Your task to perform on an android device: uninstall "Google Pay: Save, Pay, Manage" Image 0: 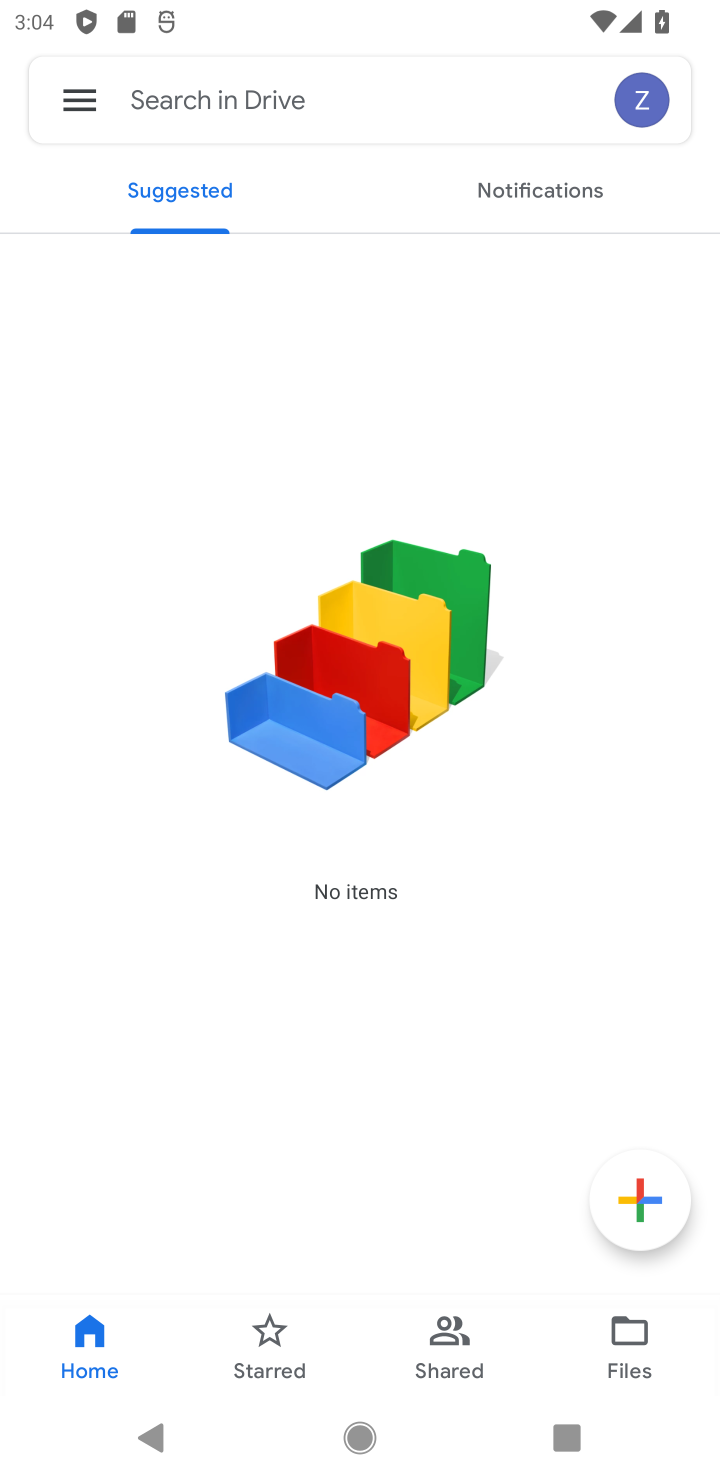
Step 0: press home button
Your task to perform on an android device: uninstall "Google Pay: Save, Pay, Manage" Image 1: 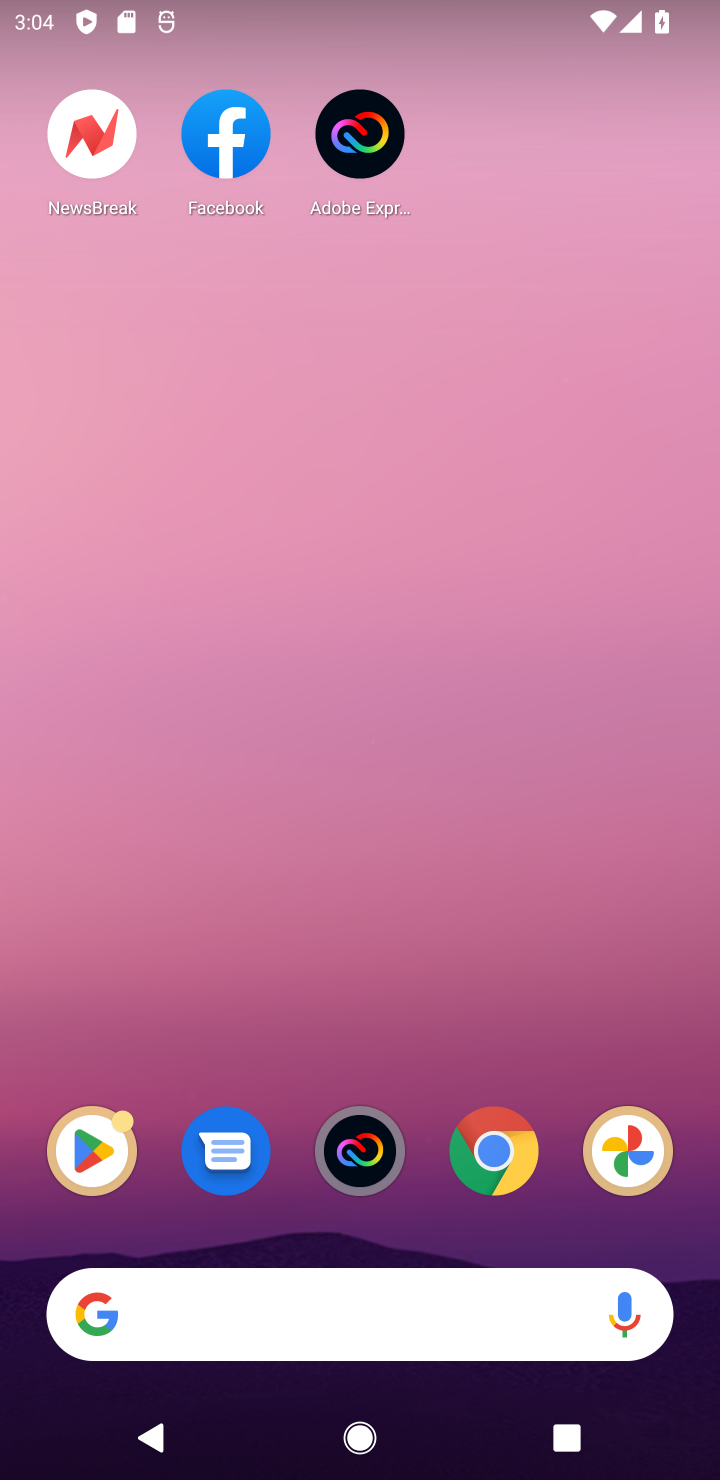
Step 1: drag from (422, 1454) to (398, 159)
Your task to perform on an android device: uninstall "Google Pay: Save, Pay, Manage" Image 2: 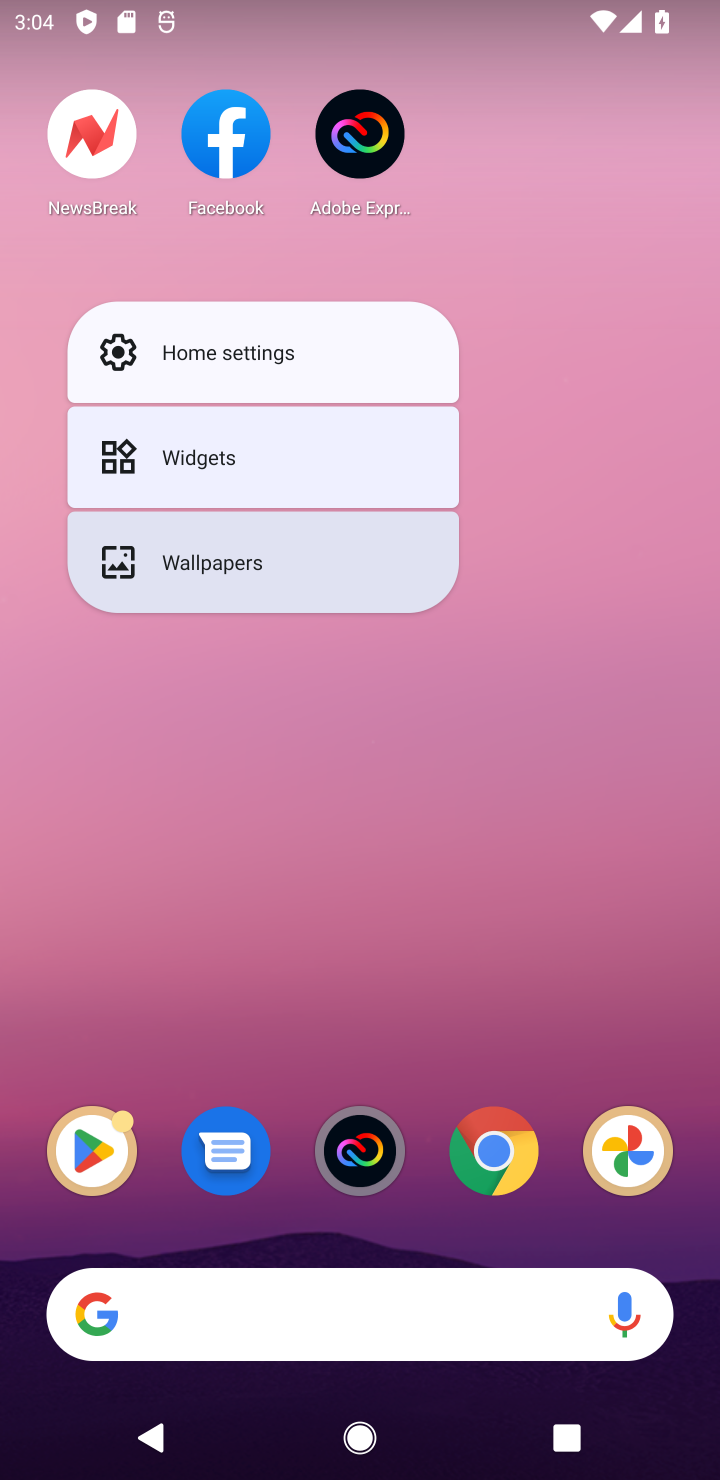
Step 2: click (483, 695)
Your task to perform on an android device: uninstall "Google Pay: Save, Pay, Manage" Image 3: 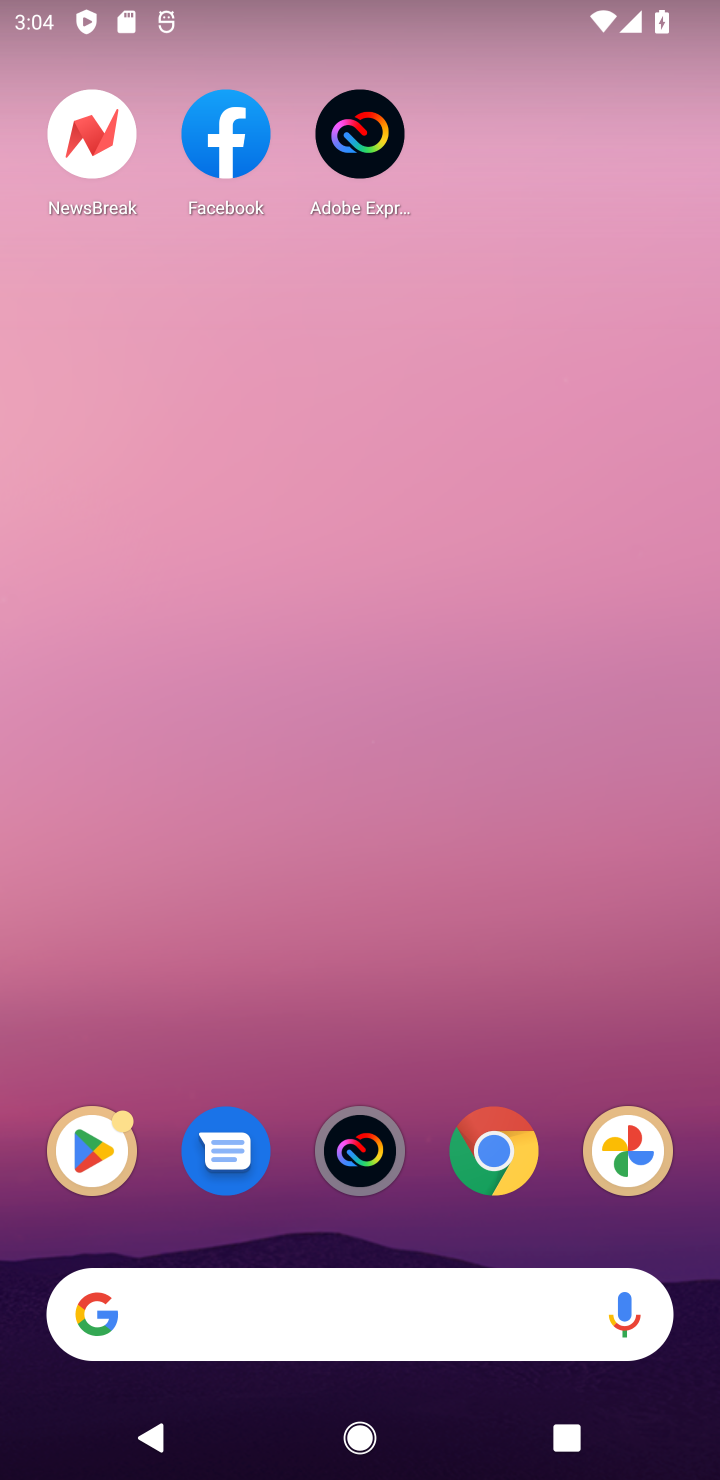
Step 3: drag from (419, 1280) to (354, 369)
Your task to perform on an android device: uninstall "Google Pay: Save, Pay, Manage" Image 4: 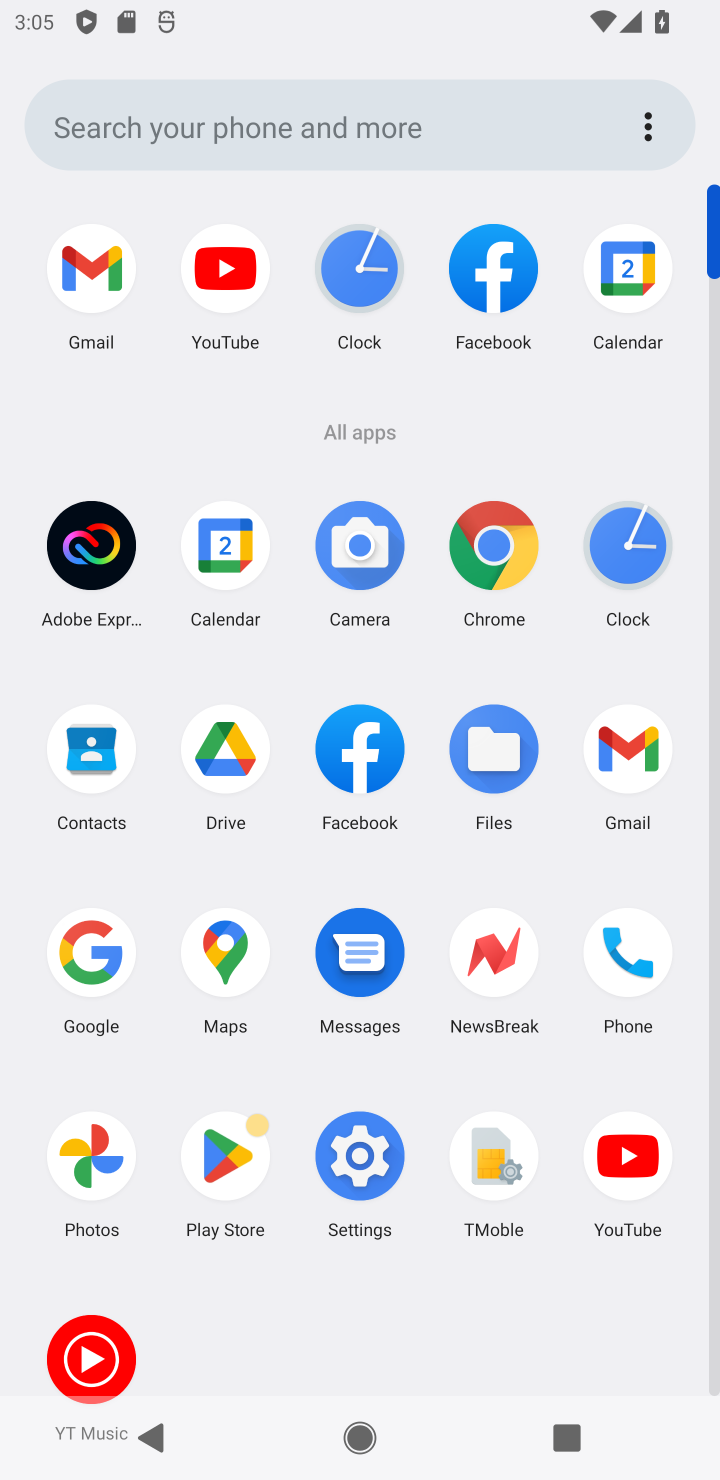
Step 4: click (234, 1160)
Your task to perform on an android device: uninstall "Google Pay: Save, Pay, Manage" Image 5: 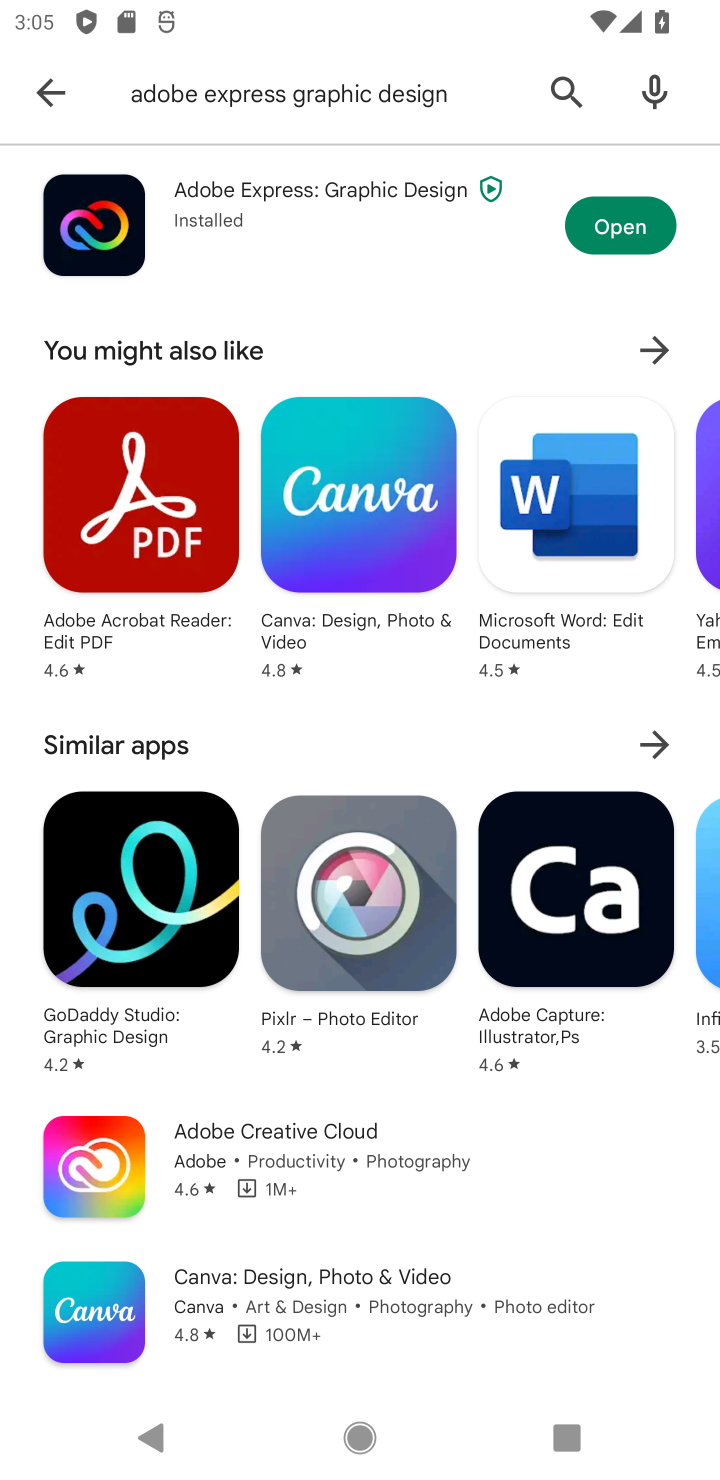
Step 5: click (563, 93)
Your task to perform on an android device: uninstall "Google Pay: Save, Pay, Manage" Image 6: 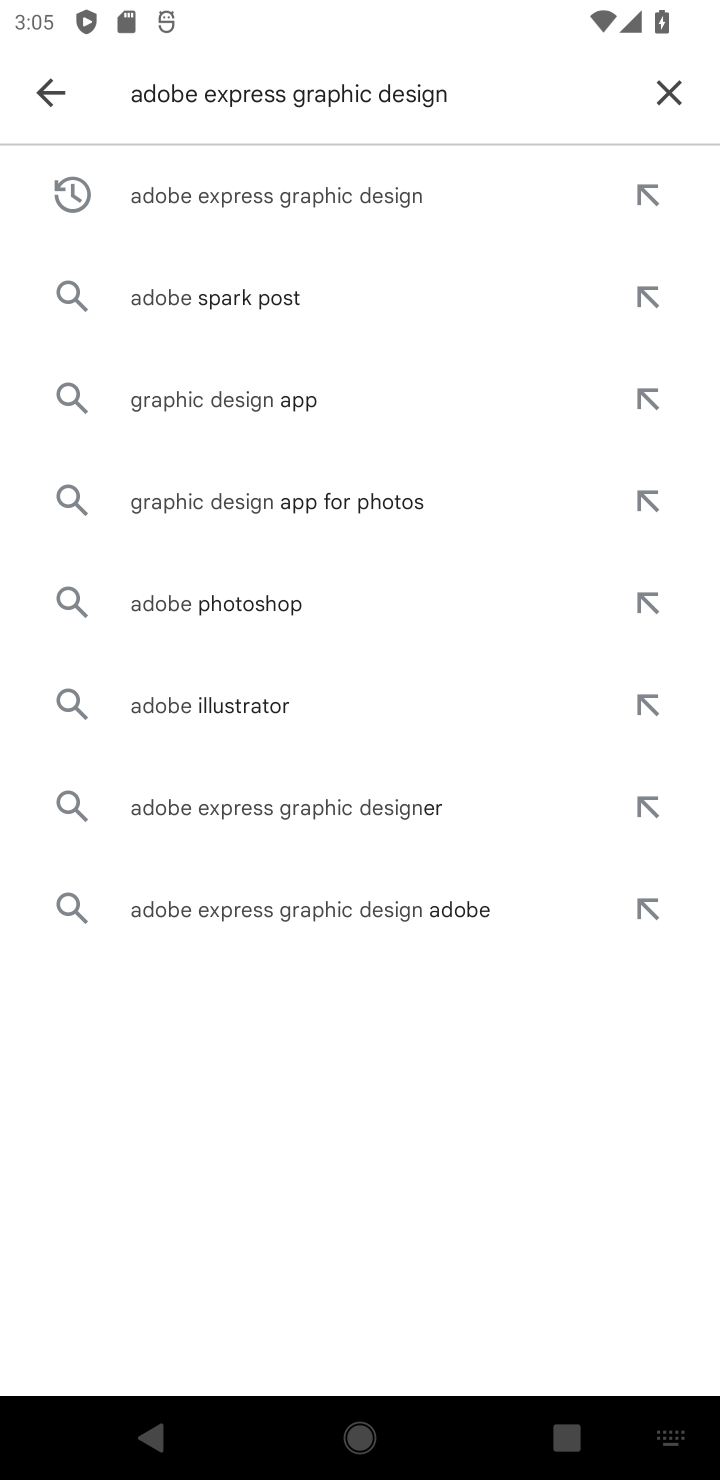
Step 6: click (669, 90)
Your task to perform on an android device: uninstall "Google Pay: Save, Pay, Manage" Image 7: 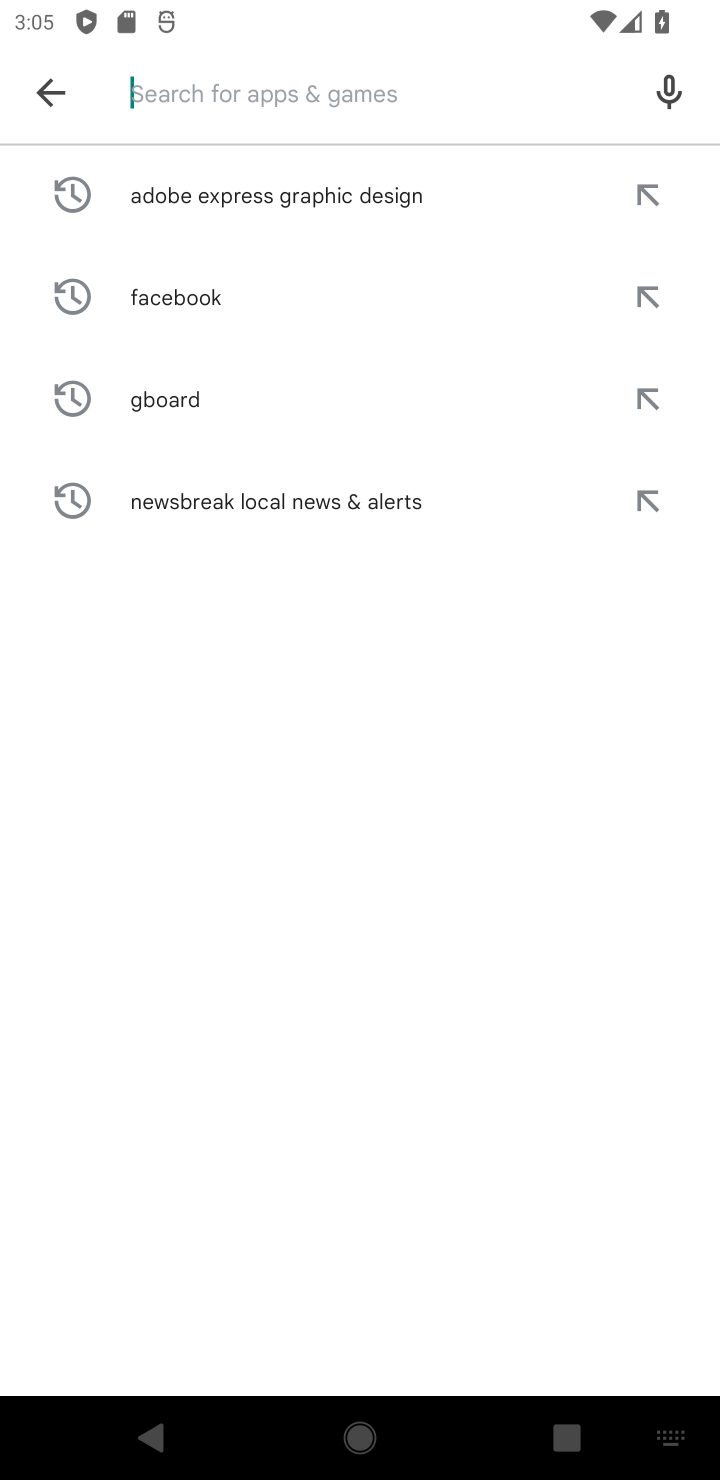
Step 7: type "Google Pay: Save, Pay, Manage"
Your task to perform on an android device: uninstall "Google Pay: Save, Pay, Manage" Image 8: 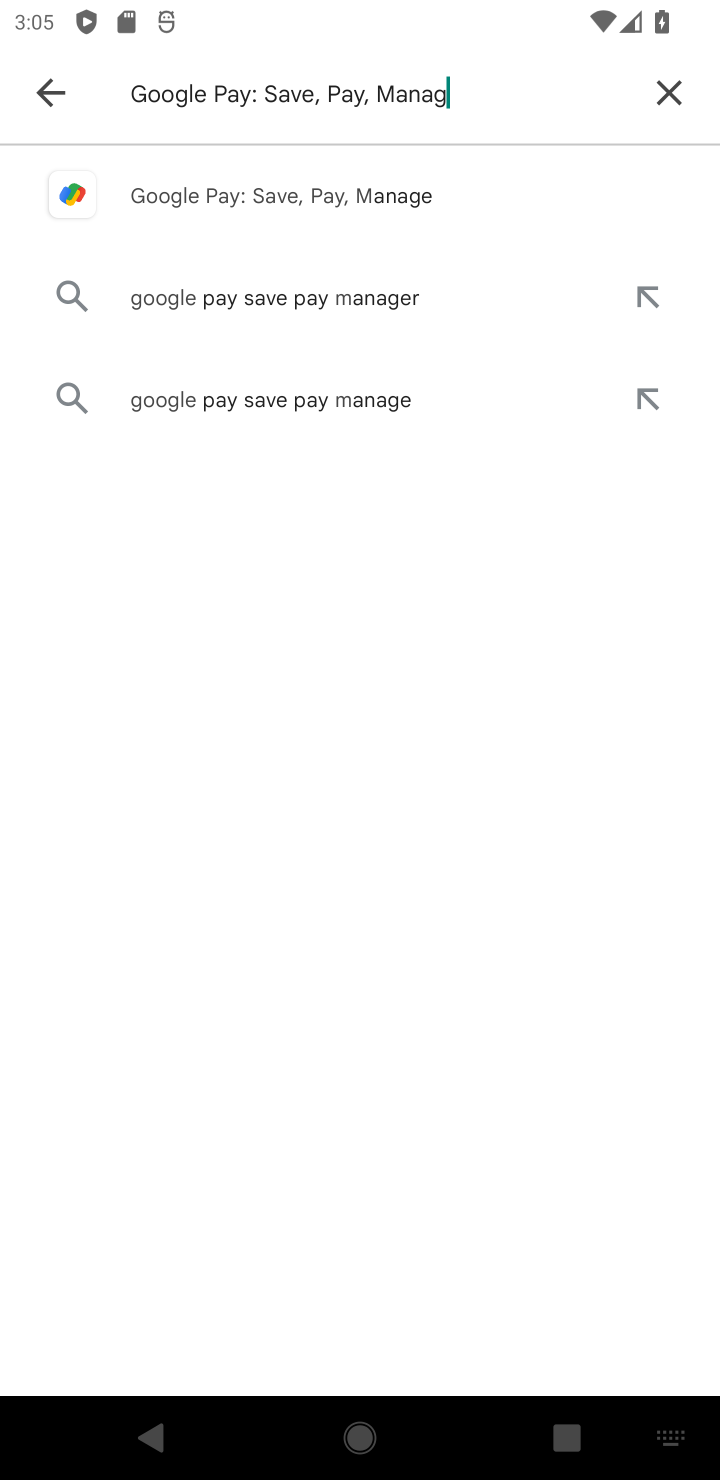
Step 8: type ""
Your task to perform on an android device: uninstall "Google Pay: Save, Pay, Manage" Image 9: 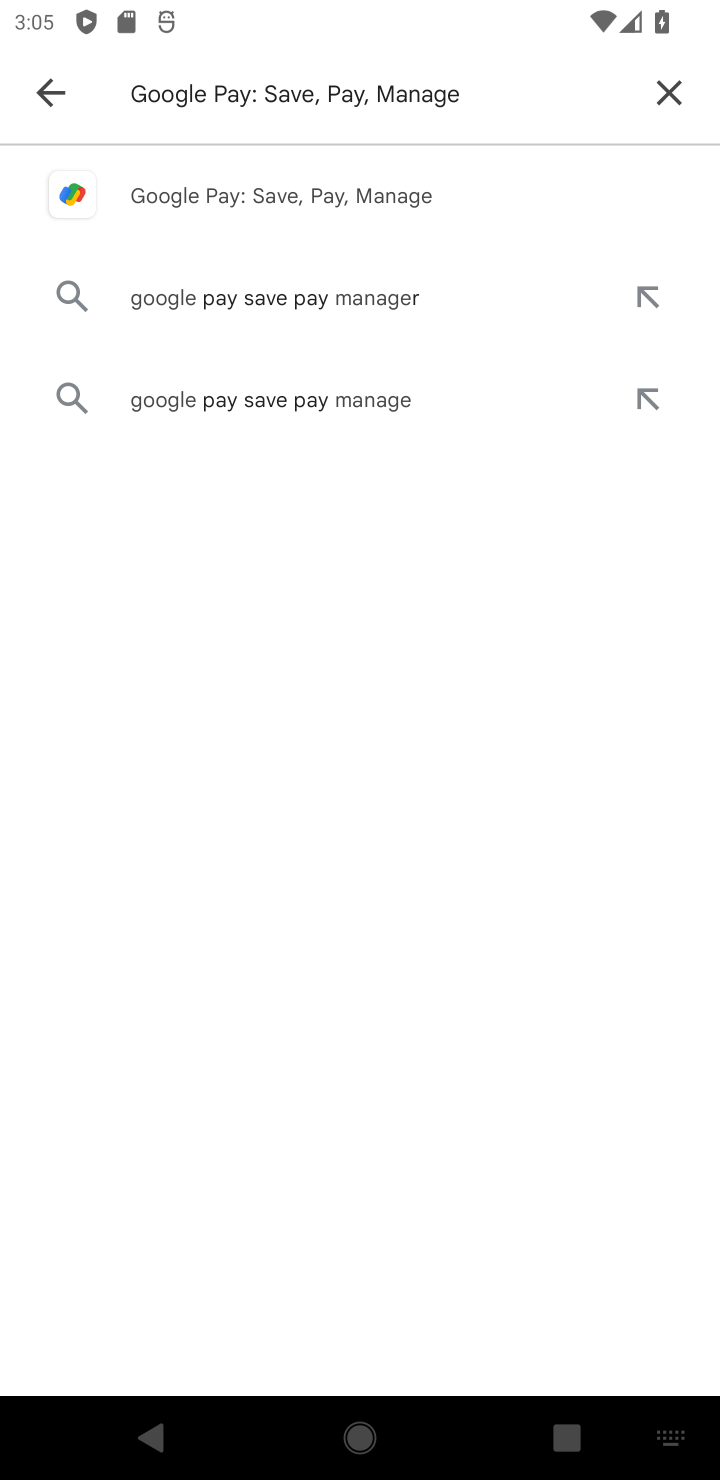
Step 9: click (318, 195)
Your task to perform on an android device: uninstall "Google Pay: Save, Pay, Manage" Image 10: 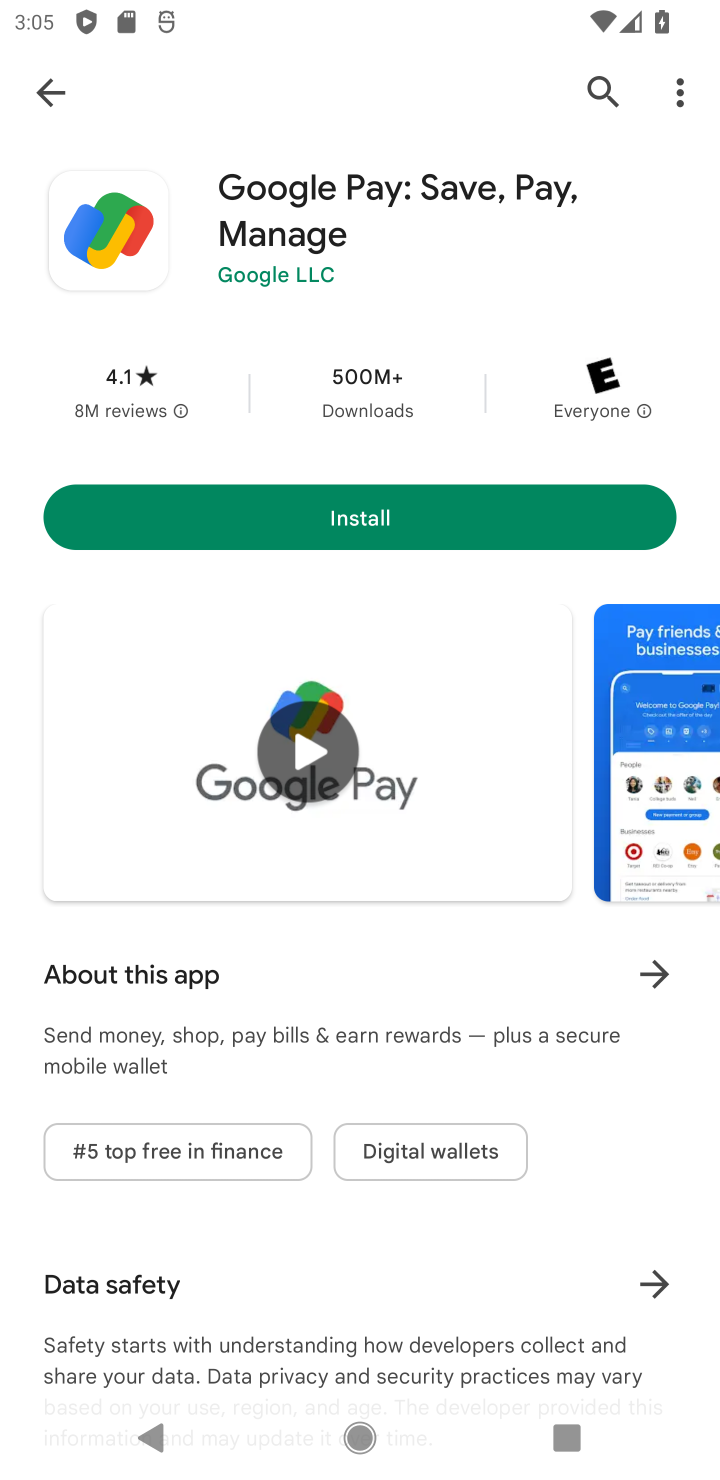
Step 10: task complete